Your task to perform on an android device: Go to notification settings Image 0: 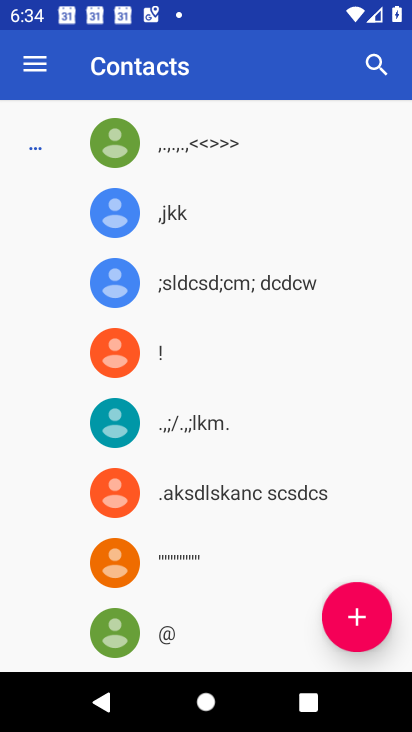
Step 0: drag from (335, 585) to (301, 303)
Your task to perform on an android device: Go to notification settings Image 1: 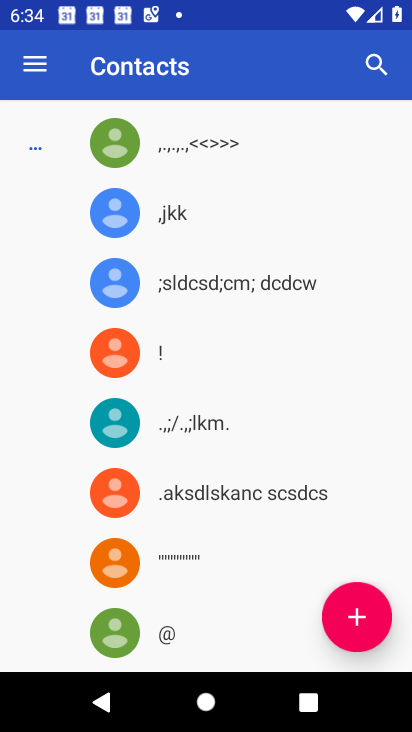
Step 1: press home button
Your task to perform on an android device: Go to notification settings Image 2: 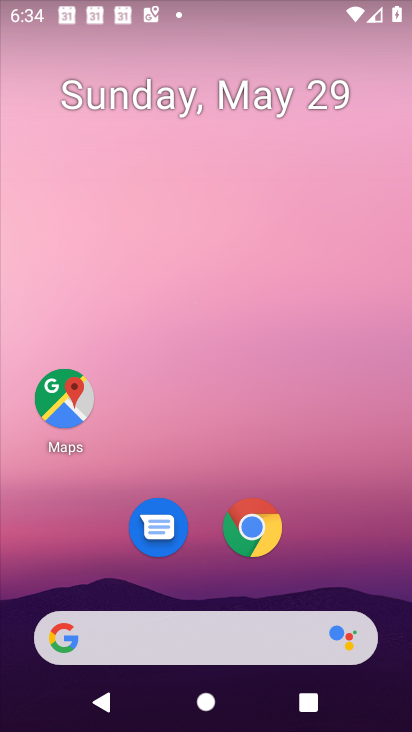
Step 2: drag from (351, 518) to (257, 41)
Your task to perform on an android device: Go to notification settings Image 3: 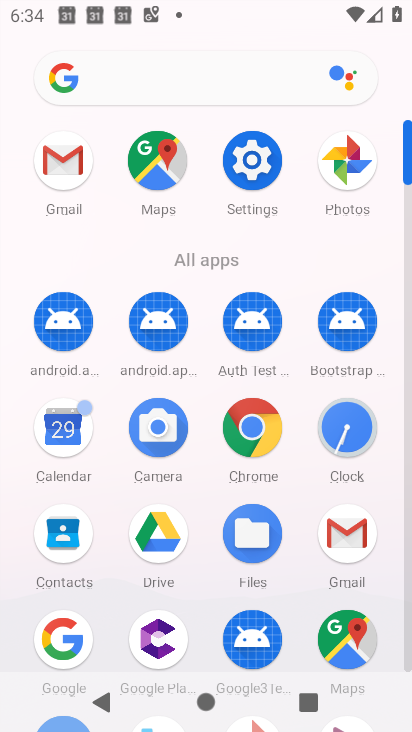
Step 3: click (266, 155)
Your task to perform on an android device: Go to notification settings Image 4: 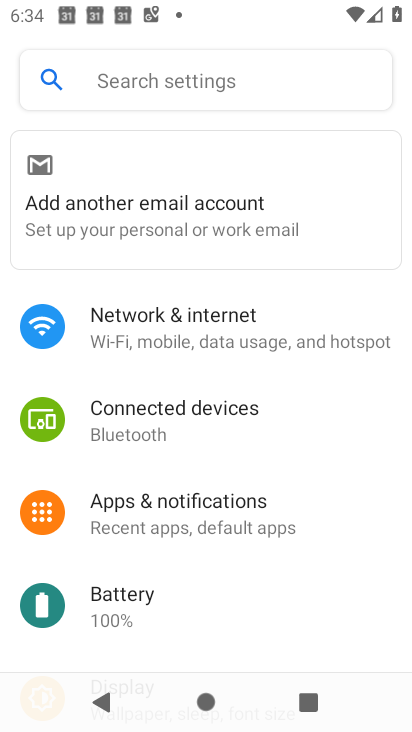
Step 4: click (166, 492)
Your task to perform on an android device: Go to notification settings Image 5: 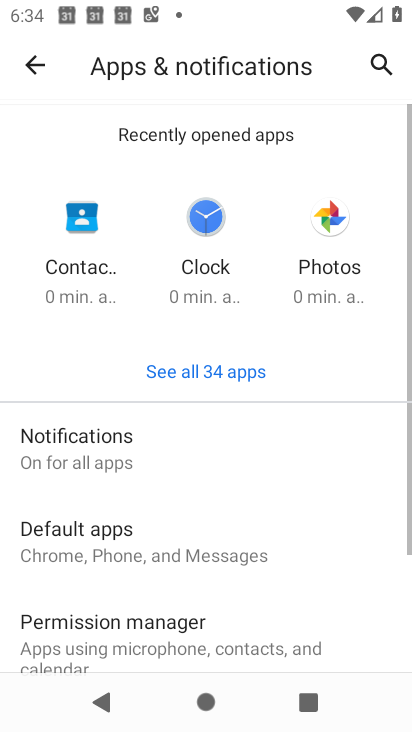
Step 5: click (207, 438)
Your task to perform on an android device: Go to notification settings Image 6: 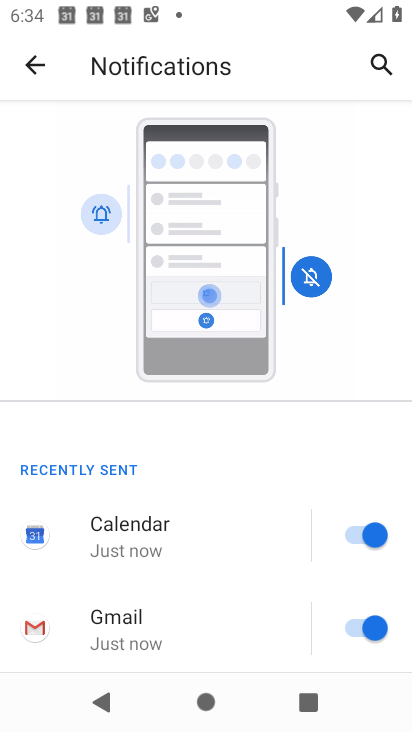
Step 6: task complete